Your task to perform on an android device: turn vacation reply on in the gmail app Image 0: 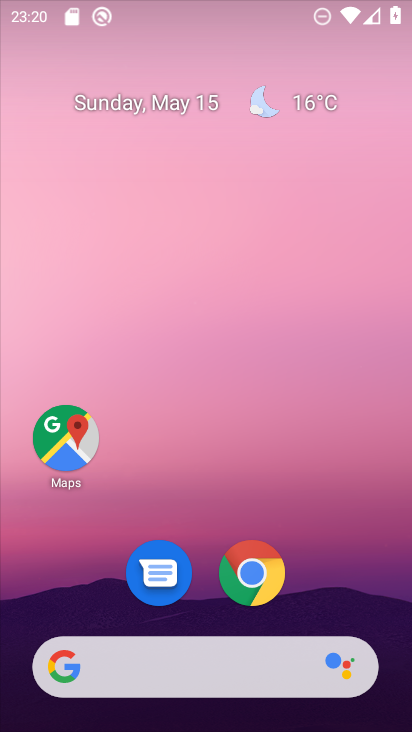
Step 0: press home button
Your task to perform on an android device: turn vacation reply on in the gmail app Image 1: 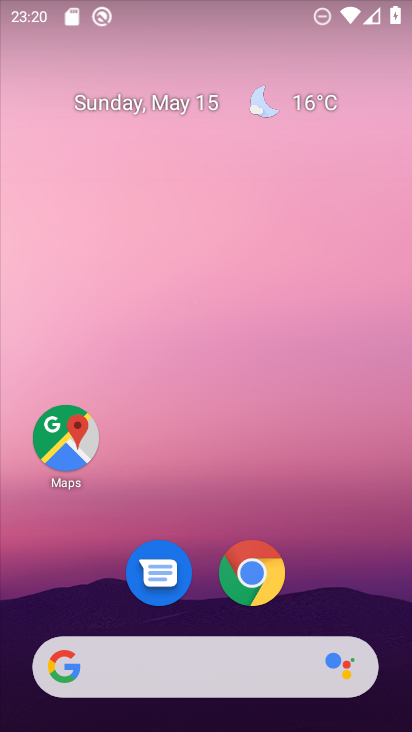
Step 1: drag from (362, 578) to (373, 0)
Your task to perform on an android device: turn vacation reply on in the gmail app Image 2: 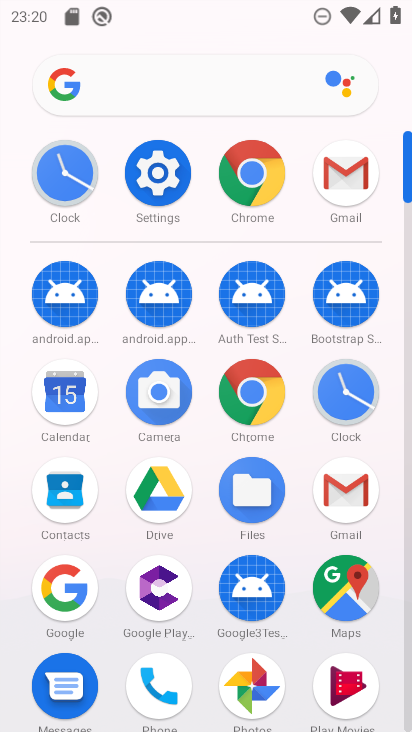
Step 2: click (331, 185)
Your task to perform on an android device: turn vacation reply on in the gmail app Image 3: 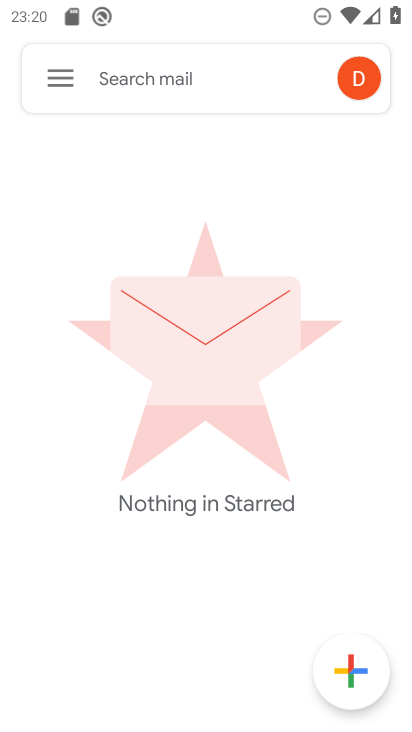
Step 3: click (49, 81)
Your task to perform on an android device: turn vacation reply on in the gmail app Image 4: 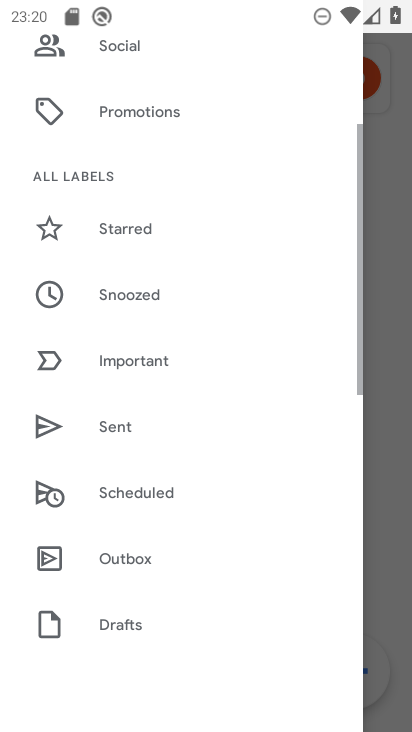
Step 4: drag from (183, 560) to (204, 129)
Your task to perform on an android device: turn vacation reply on in the gmail app Image 5: 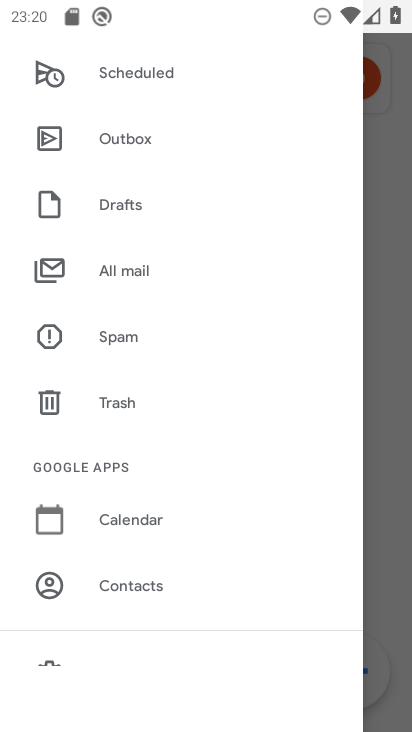
Step 5: drag from (120, 584) to (146, 219)
Your task to perform on an android device: turn vacation reply on in the gmail app Image 6: 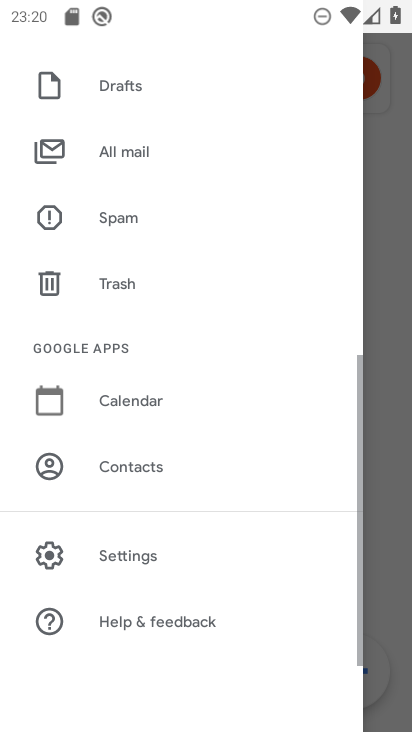
Step 6: click (115, 560)
Your task to perform on an android device: turn vacation reply on in the gmail app Image 7: 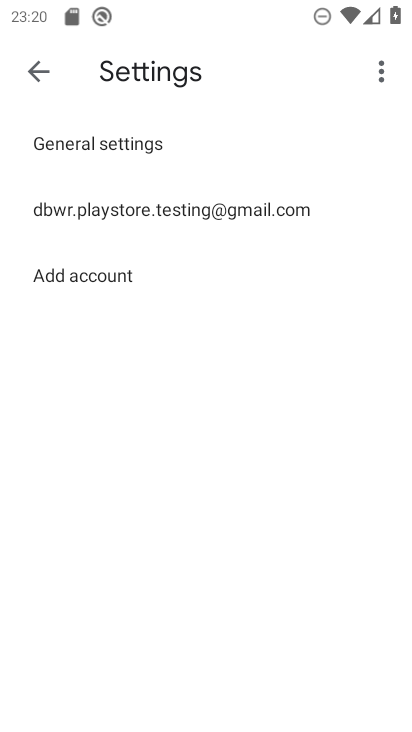
Step 7: click (214, 218)
Your task to perform on an android device: turn vacation reply on in the gmail app Image 8: 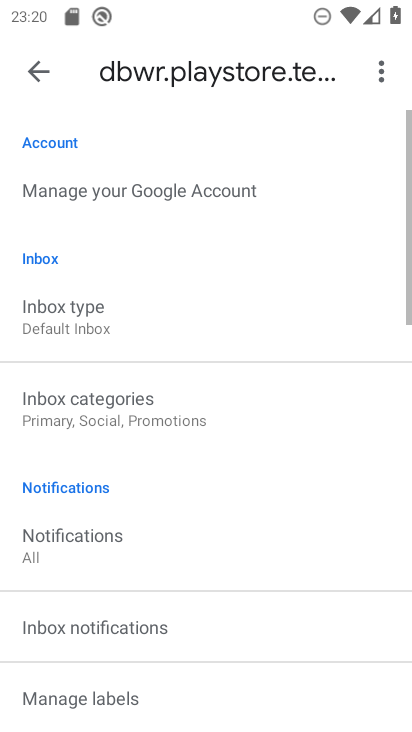
Step 8: drag from (219, 622) to (241, 236)
Your task to perform on an android device: turn vacation reply on in the gmail app Image 9: 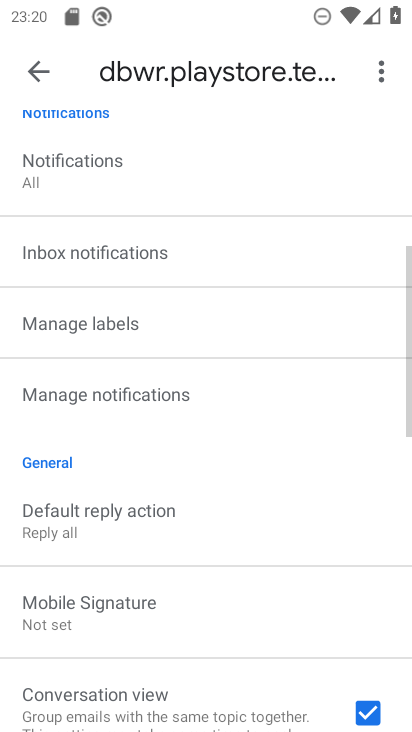
Step 9: drag from (265, 519) to (273, 121)
Your task to perform on an android device: turn vacation reply on in the gmail app Image 10: 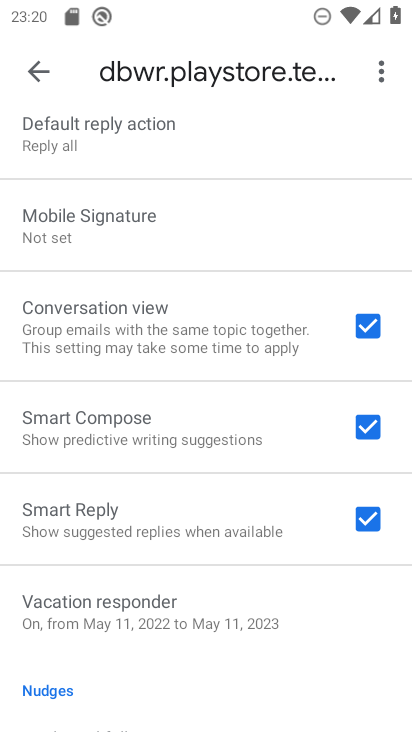
Step 10: click (191, 624)
Your task to perform on an android device: turn vacation reply on in the gmail app Image 11: 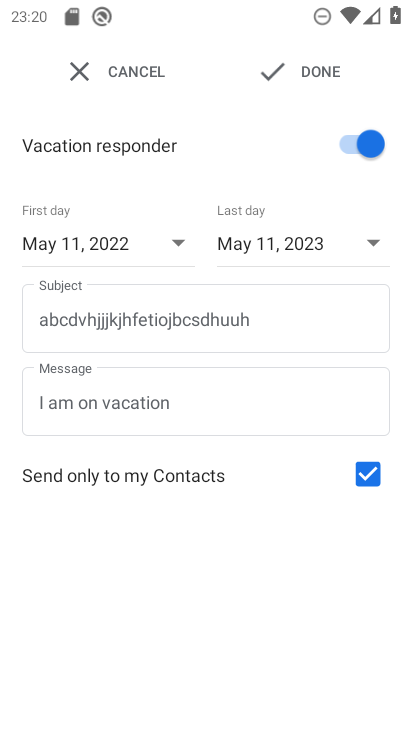
Step 11: click (173, 247)
Your task to perform on an android device: turn vacation reply on in the gmail app Image 12: 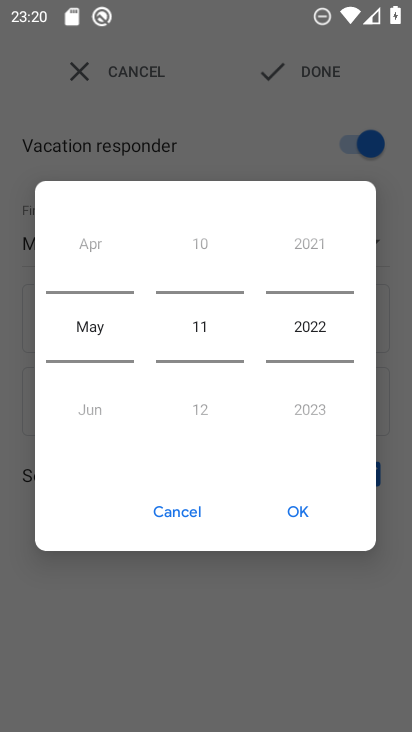
Step 12: drag from (202, 404) to (272, 81)
Your task to perform on an android device: turn vacation reply on in the gmail app Image 13: 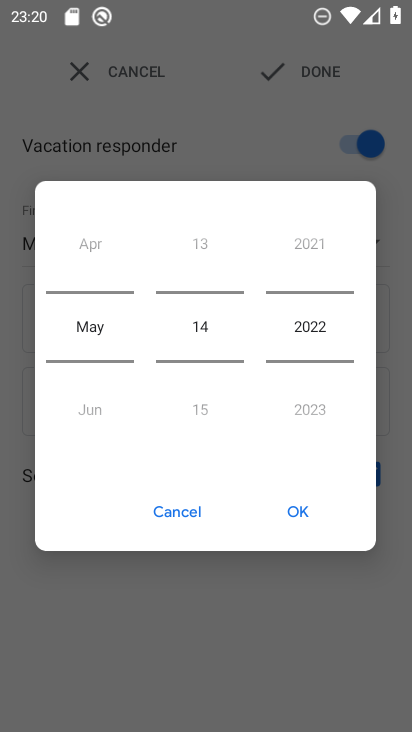
Step 13: drag from (205, 393) to (250, 152)
Your task to perform on an android device: turn vacation reply on in the gmail app Image 14: 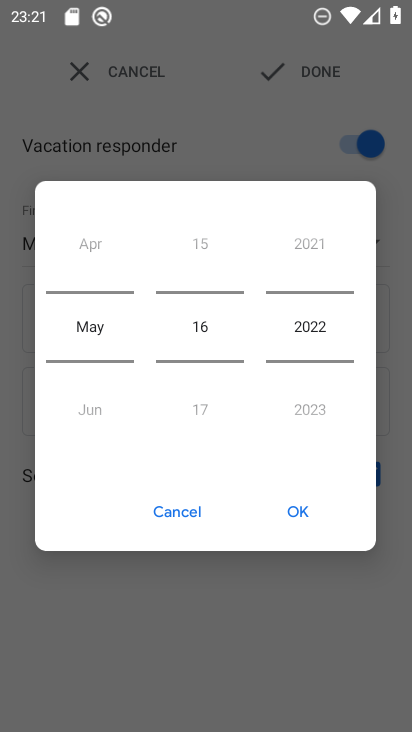
Step 14: click (303, 518)
Your task to perform on an android device: turn vacation reply on in the gmail app Image 15: 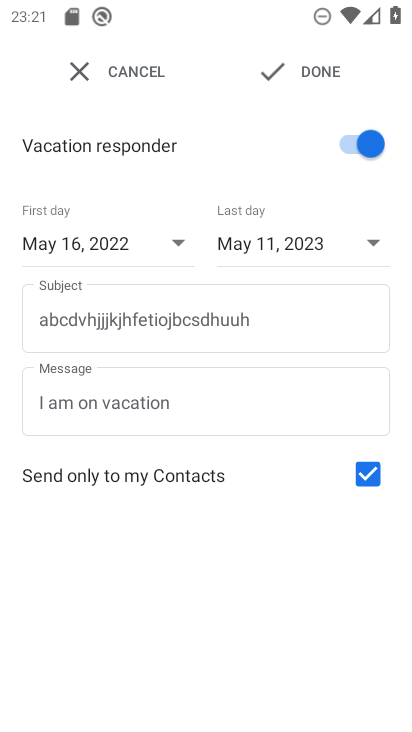
Step 15: click (305, 75)
Your task to perform on an android device: turn vacation reply on in the gmail app Image 16: 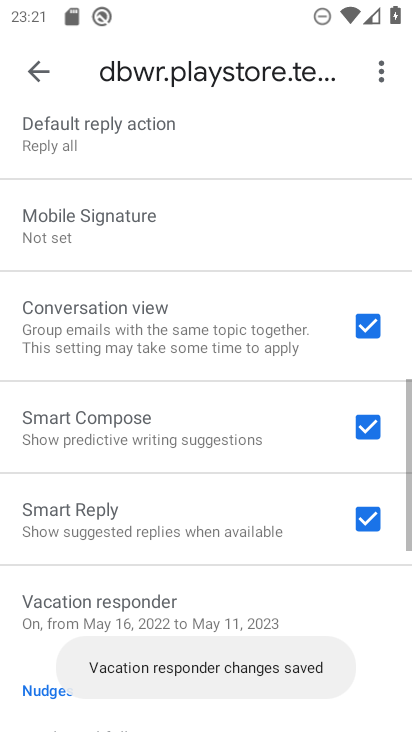
Step 16: task complete